Your task to perform on an android device: Open ESPN.com Image 0: 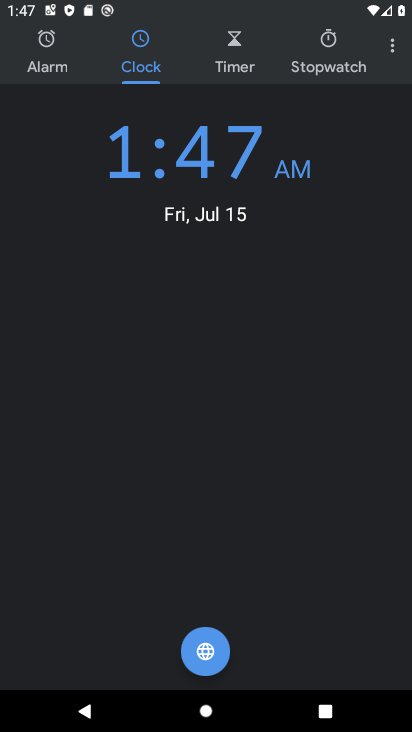
Step 0: press home button
Your task to perform on an android device: Open ESPN.com Image 1: 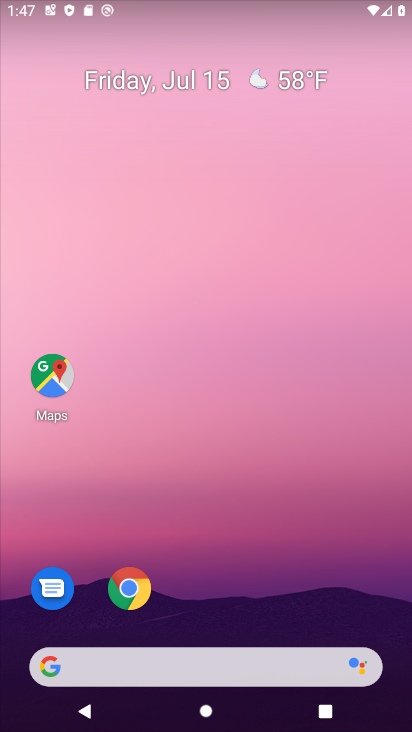
Step 1: click (138, 584)
Your task to perform on an android device: Open ESPN.com Image 2: 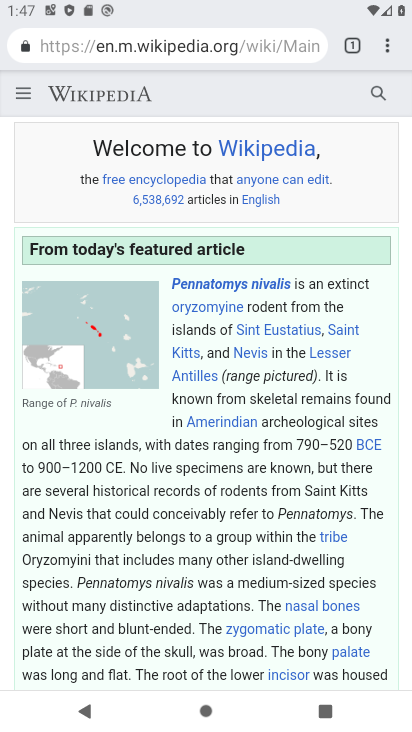
Step 2: click (172, 51)
Your task to perform on an android device: Open ESPN.com Image 3: 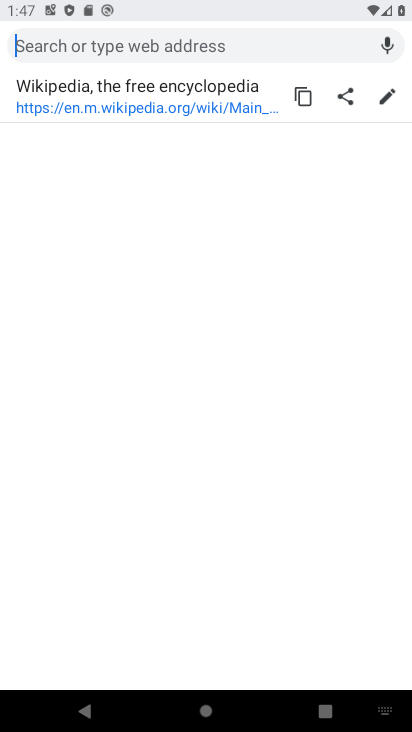
Step 3: type "ESPN.com"
Your task to perform on an android device: Open ESPN.com Image 4: 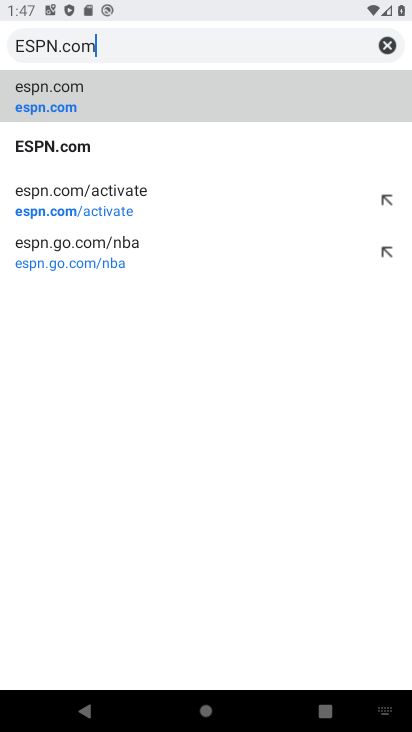
Step 4: click (51, 115)
Your task to perform on an android device: Open ESPN.com Image 5: 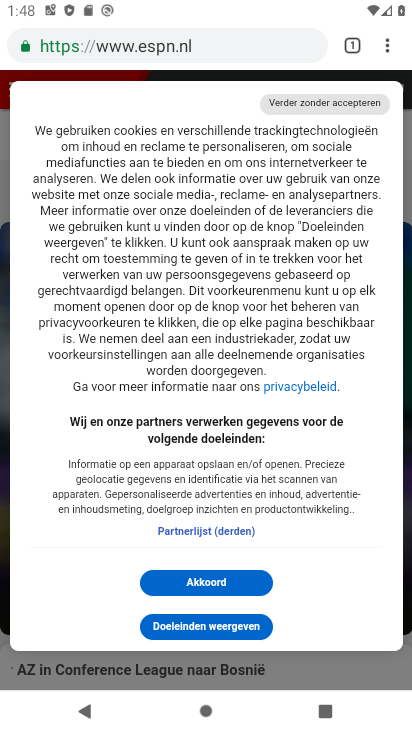
Step 5: task complete